Your task to perform on an android device: all mails in gmail Image 0: 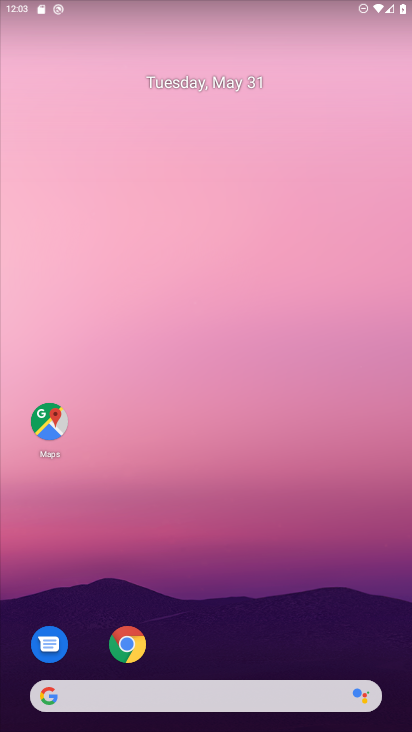
Step 0: drag from (224, 353) to (266, 150)
Your task to perform on an android device: all mails in gmail Image 1: 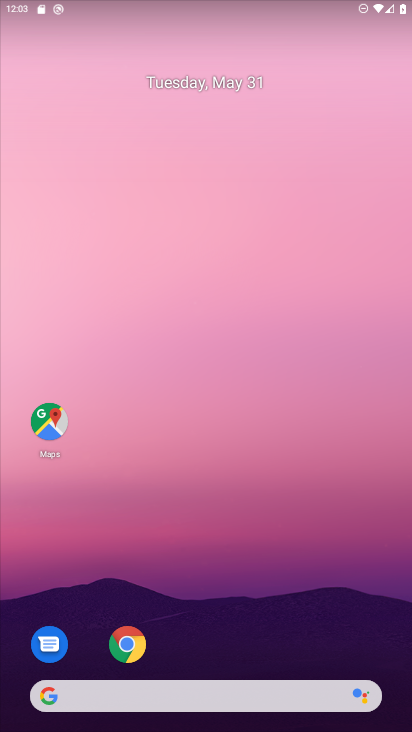
Step 1: drag from (199, 464) to (216, 69)
Your task to perform on an android device: all mails in gmail Image 2: 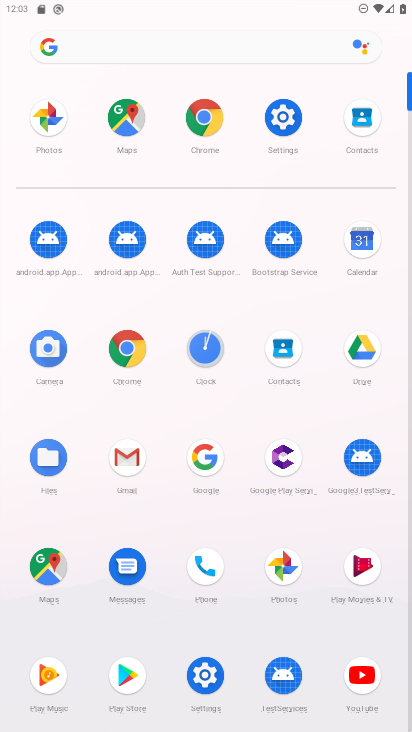
Step 2: click (136, 461)
Your task to perform on an android device: all mails in gmail Image 3: 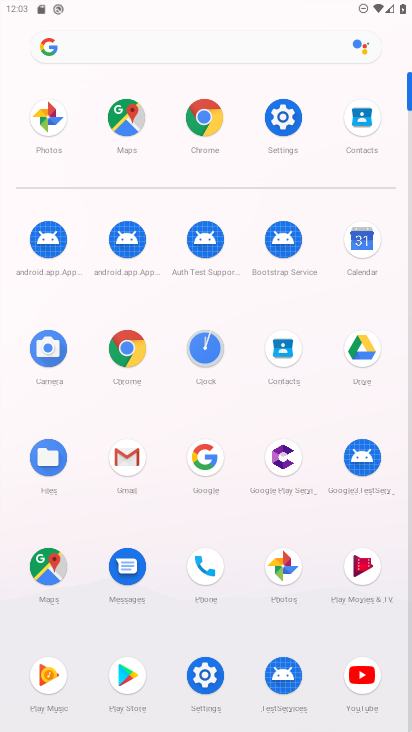
Step 3: click (136, 461)
Your task to perform on an android device: all mails in gmail Image 4: 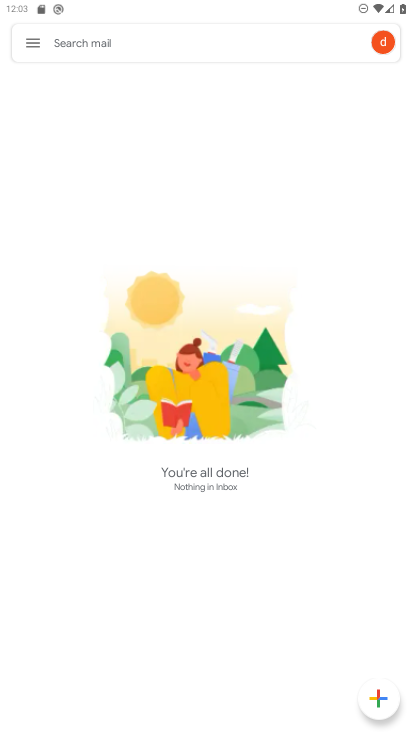
Step 4: click (34, 50)
Your task to perform on an android device: all mails in gmail Image 5: 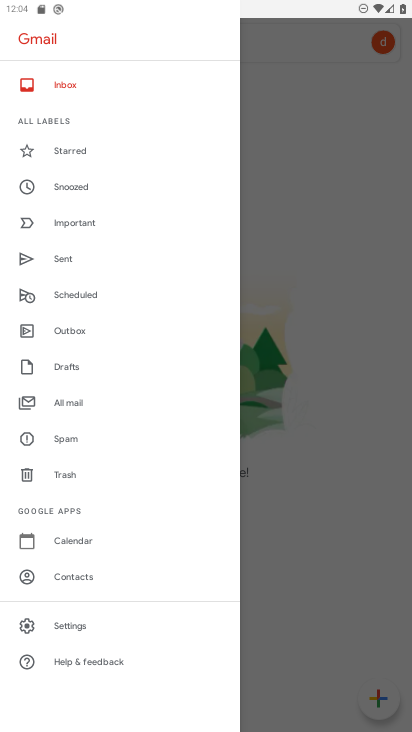
Step 5: click (62, 402)
Your task to perform on an android device: all mails in gmail Image 6: 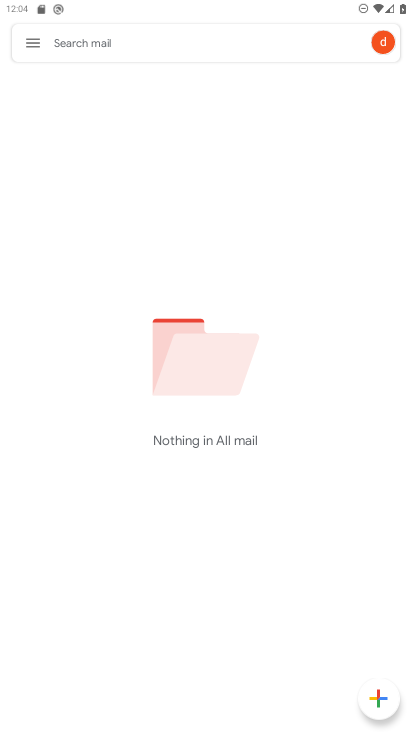
Step 6: task complete